Your task to perform on an android device: allow notifications from all sites in the chrome app Image 0: 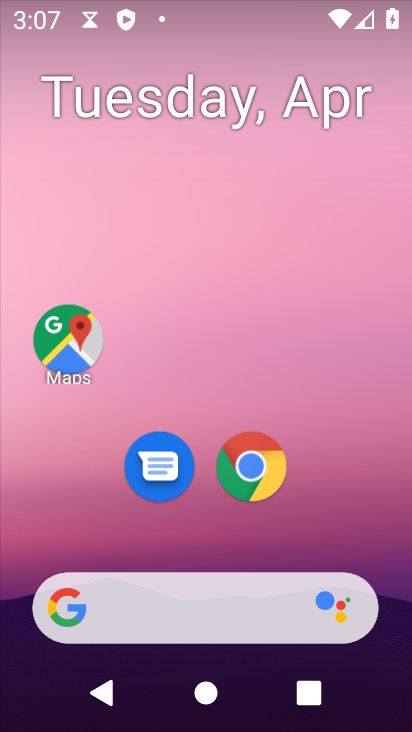
Step 0: drag from (390, 533) to (253, 25)
Your task to perform on an android device: allow notifications from all sites in the chrome app Image 1: 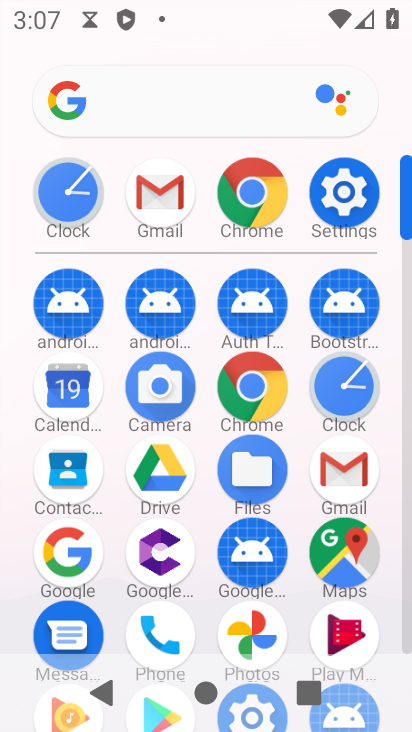
Step 1: drag from (20, 594) to (7, 323)
Your task to perform on an android device: allow notifications from all sites in the chrome app Image 2: 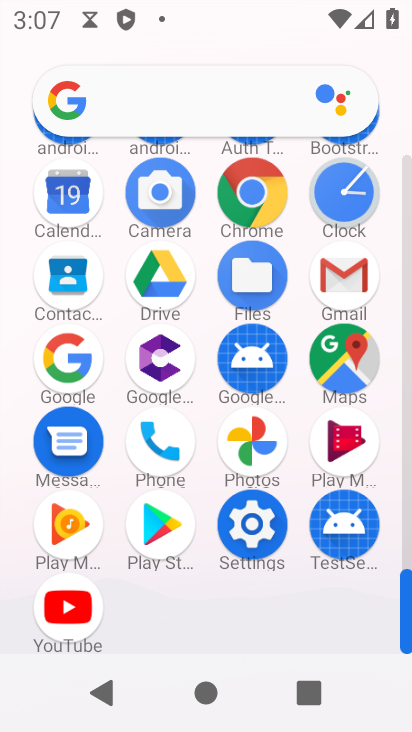
Step 2: click (249, 189)
Your task to perform on an android device: allow notifications from all sites in the chrome app Image 3: 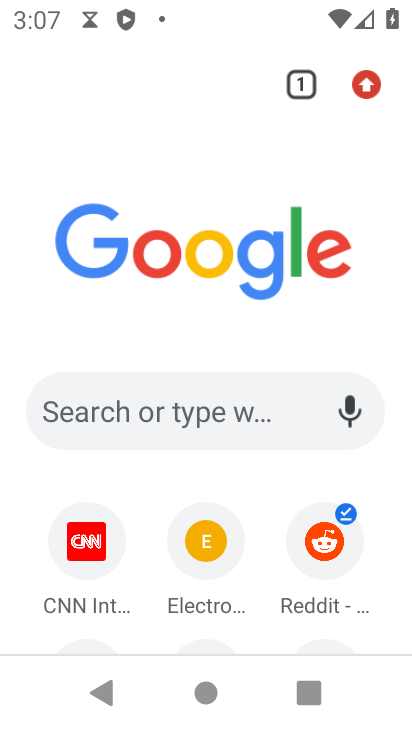
Step 3: drag from (371, 76) to (191, 501)
Your task to perform on an android device: allow notifications from all sites in the chrome app Image 4: 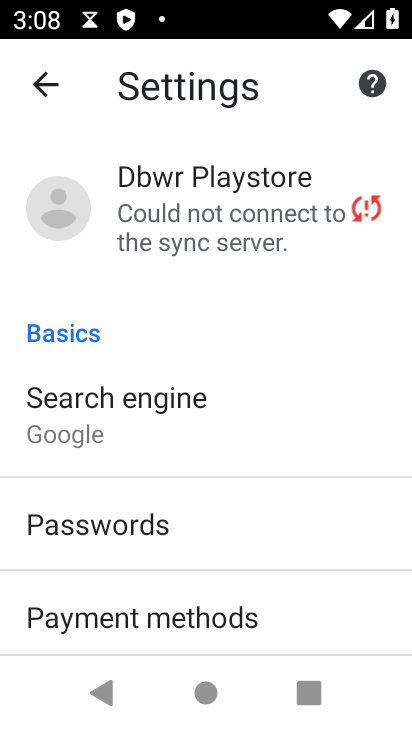
Step 4: drag from (206, 506) to (200, 307)
Your task to perform on an android device: allow notifications from all sites in the chrome app Image 5: 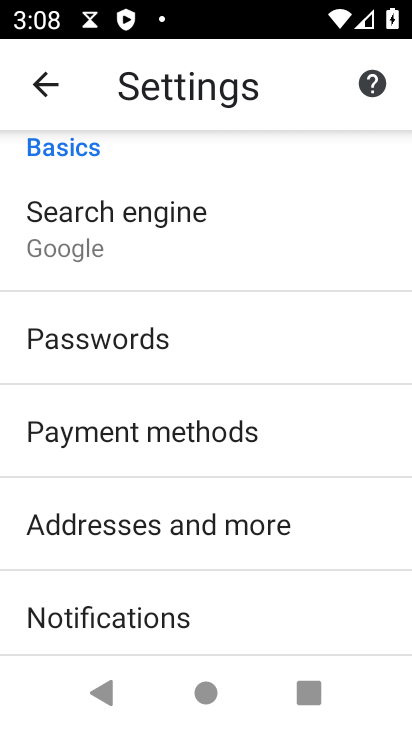
Step 5: drag from (244, 536) to (241, 190)
Your task to perform on an android device: allow notifications from all sites in the chrome app Image 6: 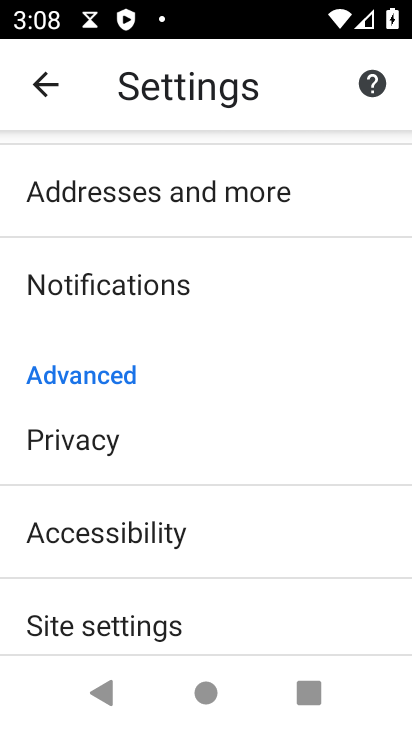
Step 6: click (171, 608)
Your task to perform on an android device: allow notifications from all sites in the chrome app Image 7: 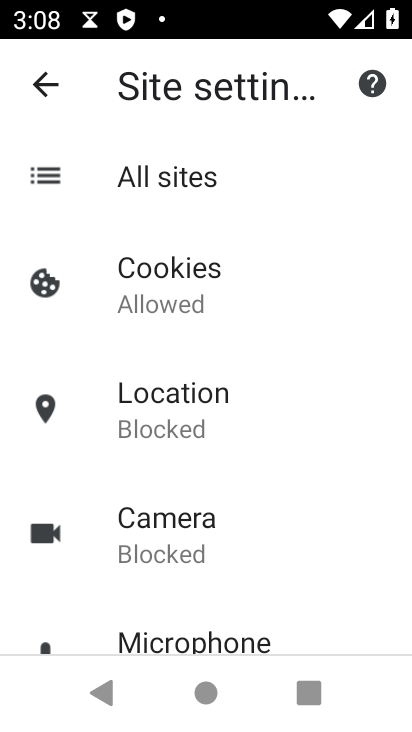
Step 7: drag from (312, 421) to (281, 200)
Your task to perform on an android device: allow notifications from all sites in the chrome app Image 8: 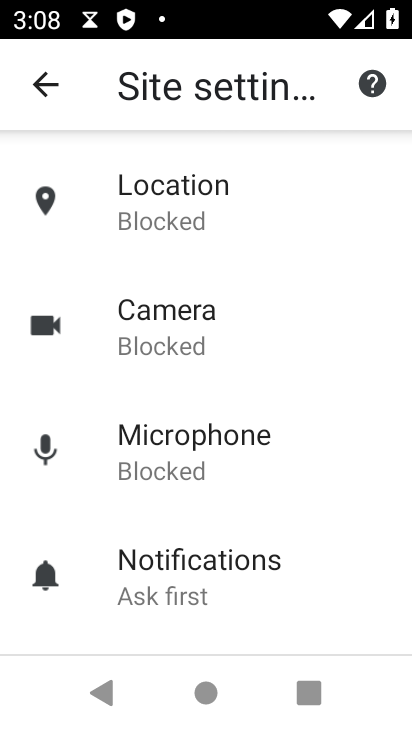
Step 8: click (257, 564)
Your task to perform on an android device: allow notifications from all sites in the chrome app Image 9: 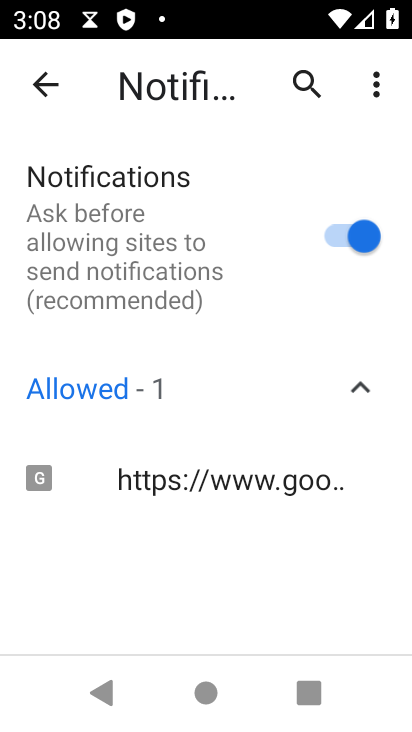
Step 9: task complete